Your task to perform on an android device: choose inbox layout in the gmail app Image 0: 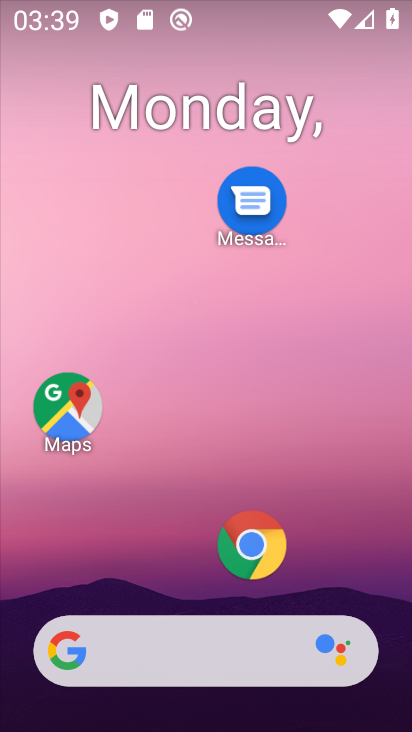
Step 0: drag from (166, 505) to (251, 135)
Your task to perform on an android device: choose inbox layout in the gmail app Image 1: 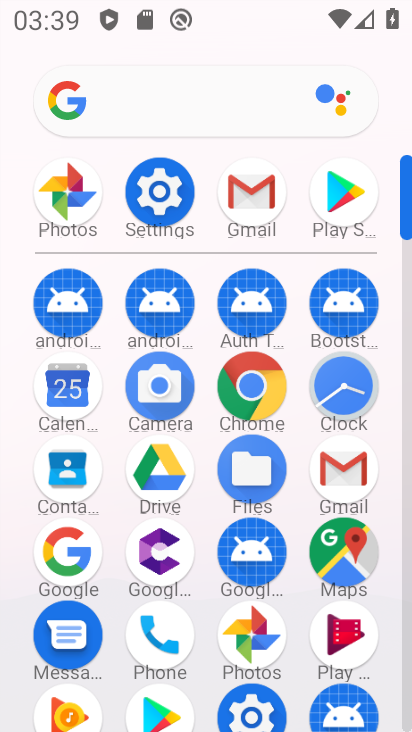
Step 1: click (269, 187)
Your task to perform on an android device: choose inbox layout in the gmail app Image 2: 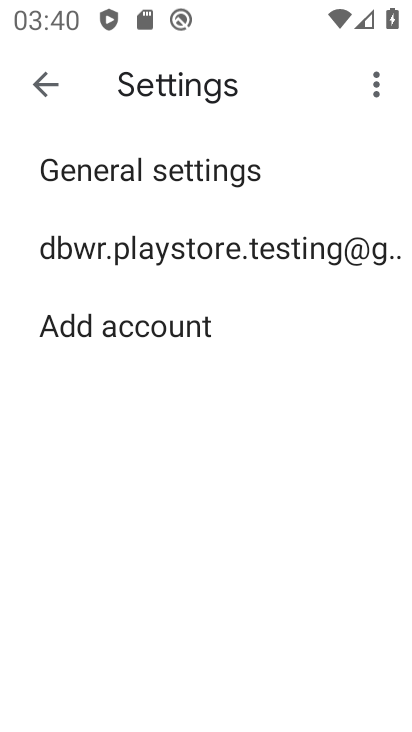
Step 2: click (120, 246)
Your task to perform on an android device: choose inbox layout in the gmail app Image 3: 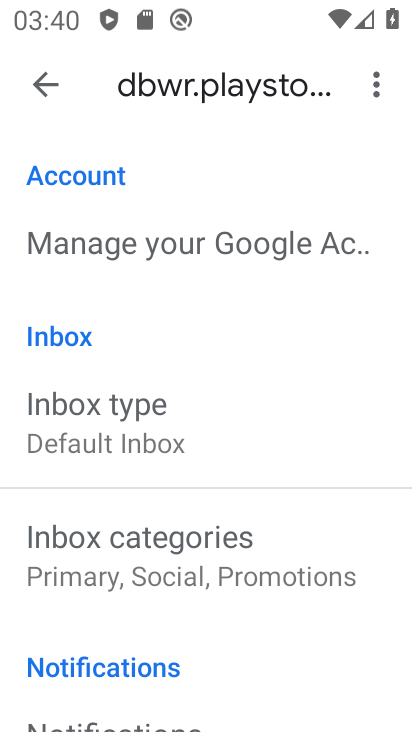
Step 3: click (120, 430)
Your task to perform on an android device: choose inbox layout in the gmail app Image 4: 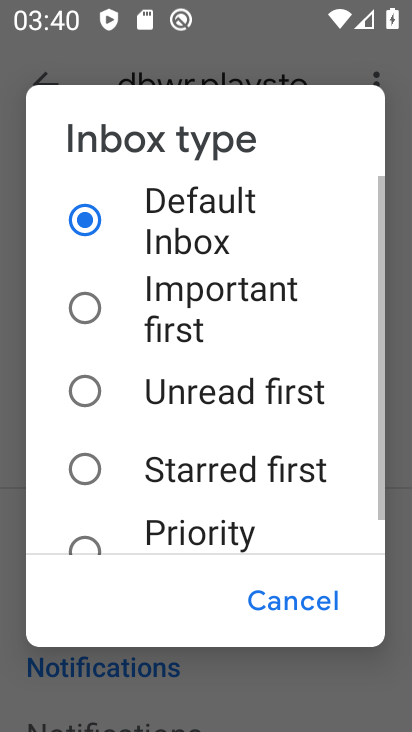
Step 4: click (93, 302)
Your task to perform on an android device: choose inbox layout in the gmail app Image 5: 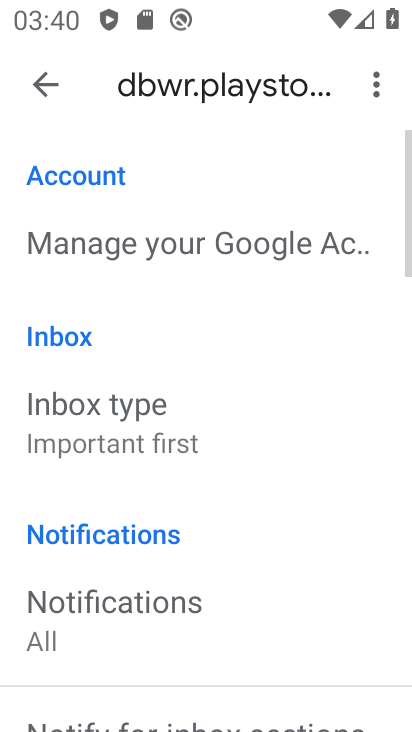
Step 5: task complete